Your task to perform on an android device: Open battery settings Image 0: 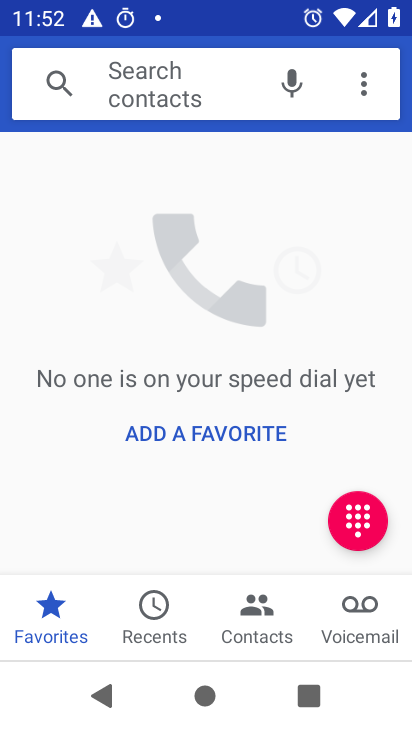
Step 0: press back button
Your task to perform on an android device: Open battery settings Image 1: 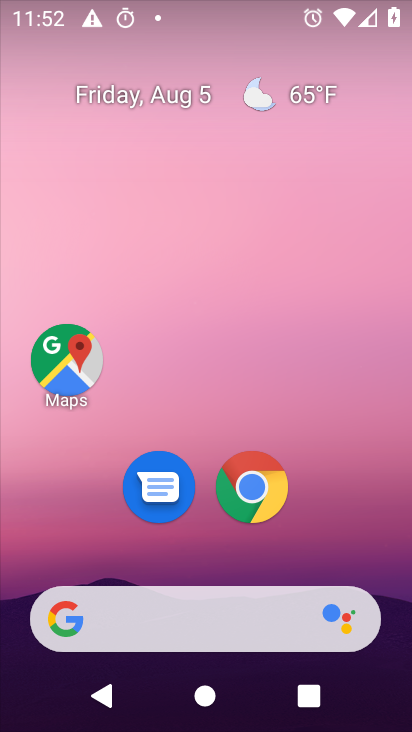
Step 1: drag from (186, 563) to (287, 125)
Your task to perform on an android device: Open battery settings Image 2: 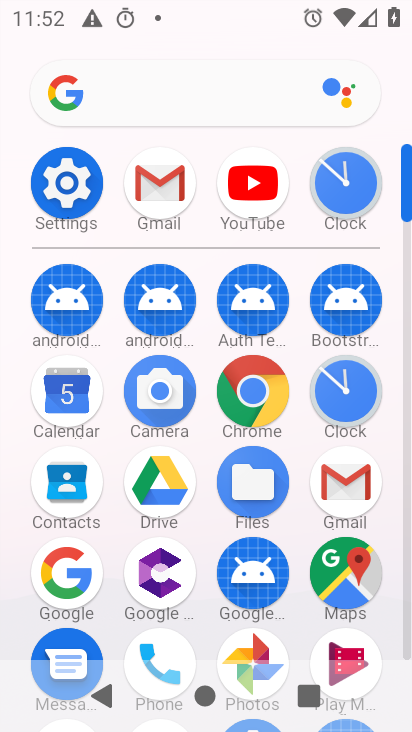
Step 2: click (92, 160)
Your task to perform on an android device: Open battery settings Image 3: 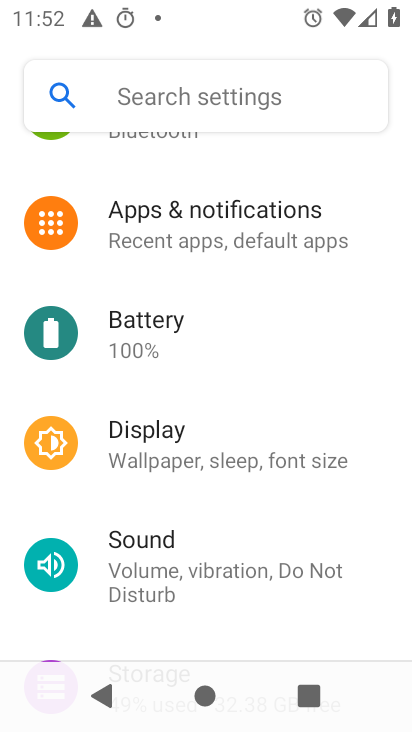
Step 3: click (139, 353)
Your task to perform on an android device: Open battery settings Image 4: 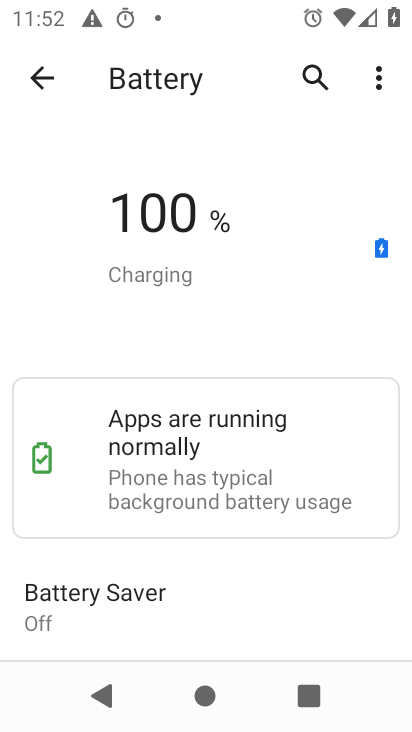
Step 4: task complete